Your task to perform on an android device: Open the map Image 0: 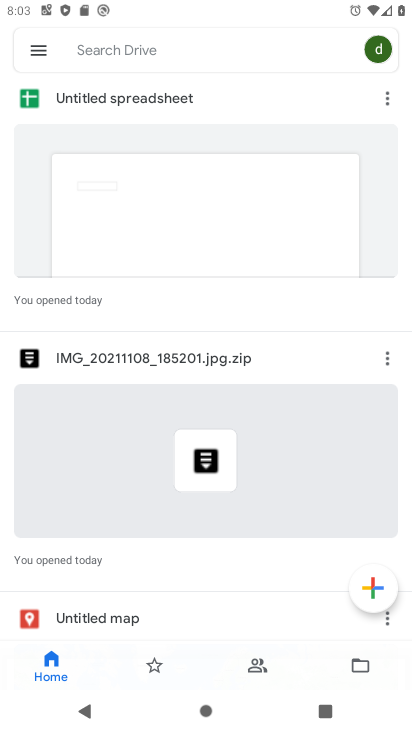
Step 0: press home button
Your task to perform on an android device: Open the map Image 1: 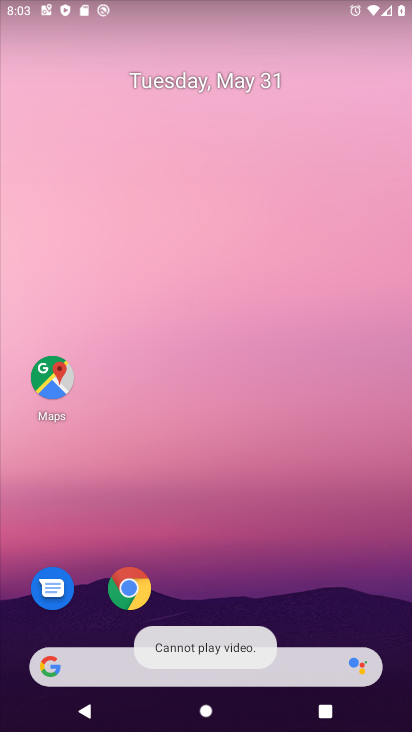
Step 1: click (60, 370)
Your task to perform on an android device: Open the map Image 2: 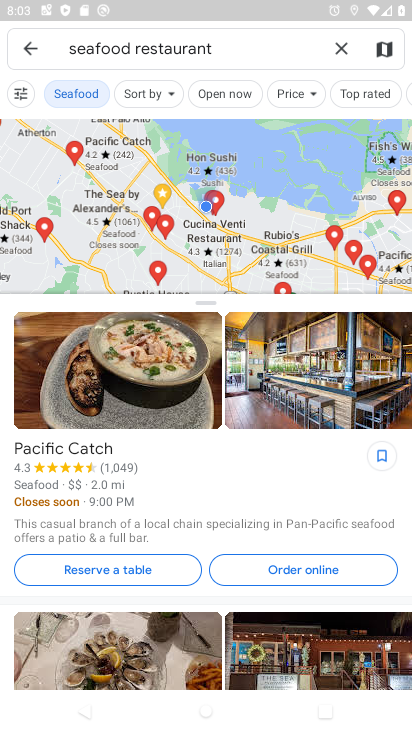
Step 2: click (344, 41)
Your task to perform on an android device: Open the map Image 3: 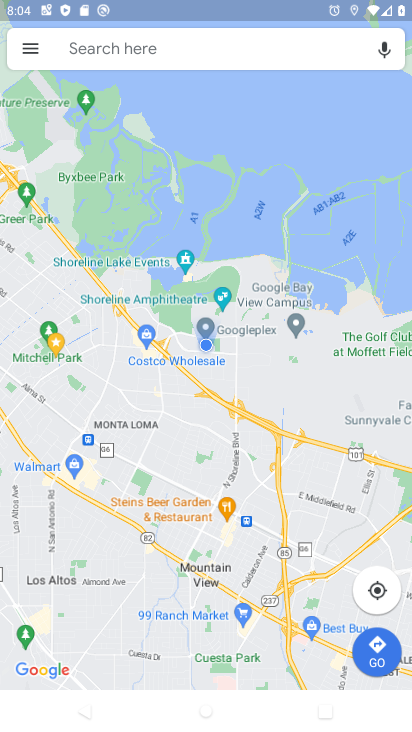
Step 3: task complete